Your task to perform on an android device: turn on translation in the chrome app Image 0: 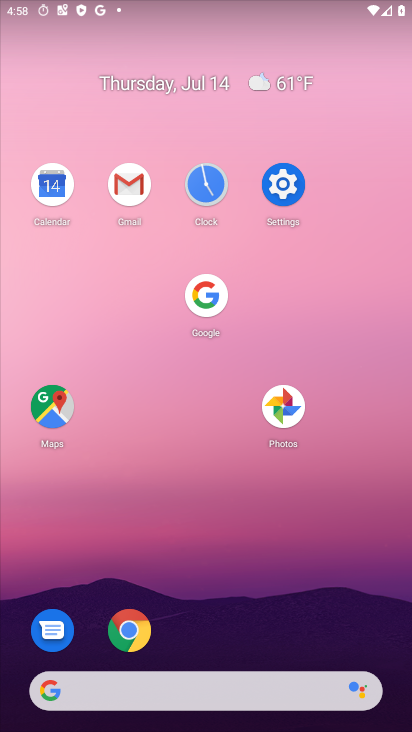
Step 0: click (126, 640)
Your task to perform on an android device: turn on translation in the chrome app Image 1: 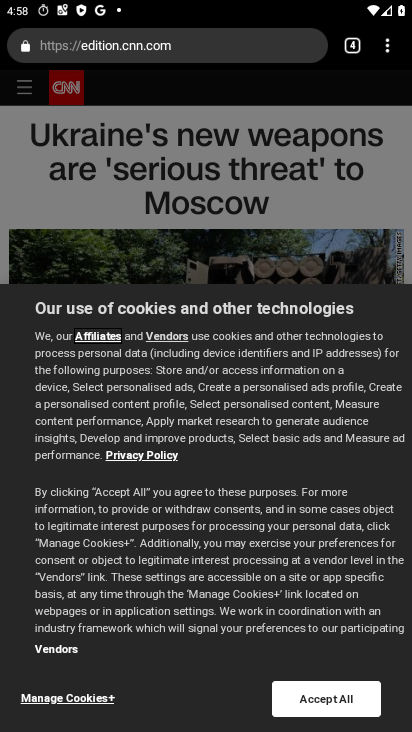
Step 1: click (393, 51)
Your task to perform on an android device: turn on translation in the chrome app Image 2: 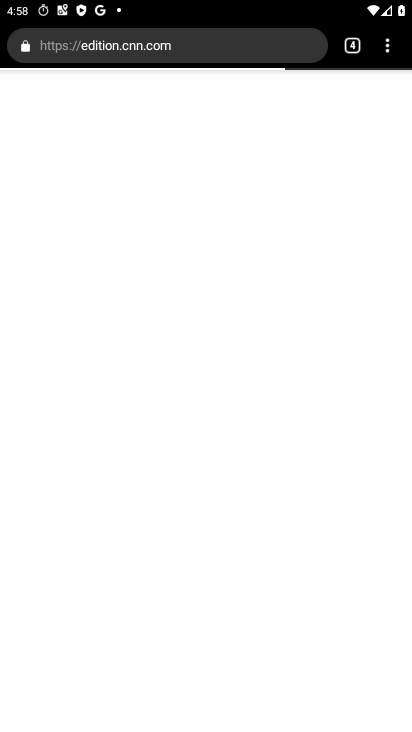
Step 2: click (391, 47)
Your task to perform on an android device: turn on translation in the chrome app Image 3: 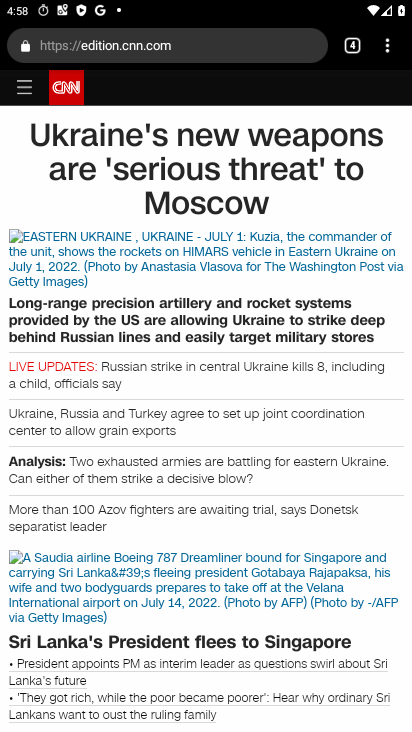
Step 3: click (391, 45)
Your task to perform on an android device: turn on translation in the chrome app Image 4: 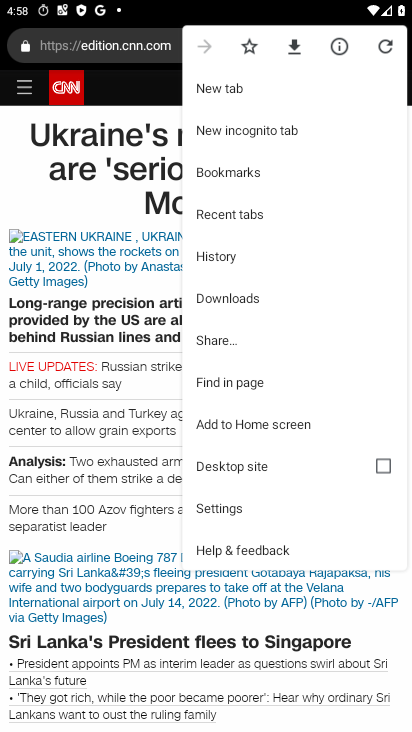
Step 4: click (228, 515)
Your task to perform on an android device: turn on translation in the chrome app Image 5: 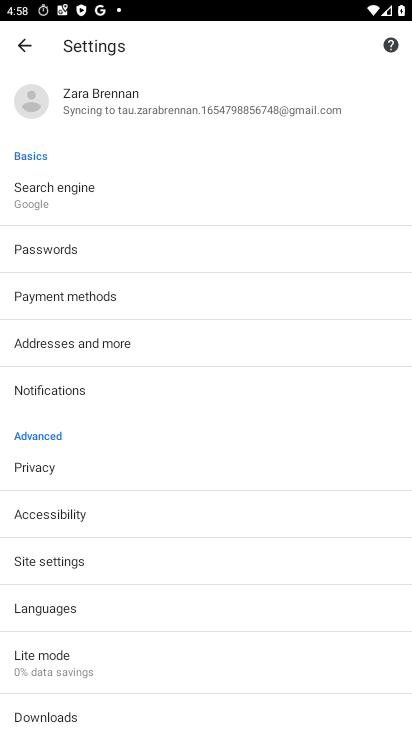
Step 5: click (103, 551)
Your task to perform on an android device: turn on translation in the chrome app Image 6: 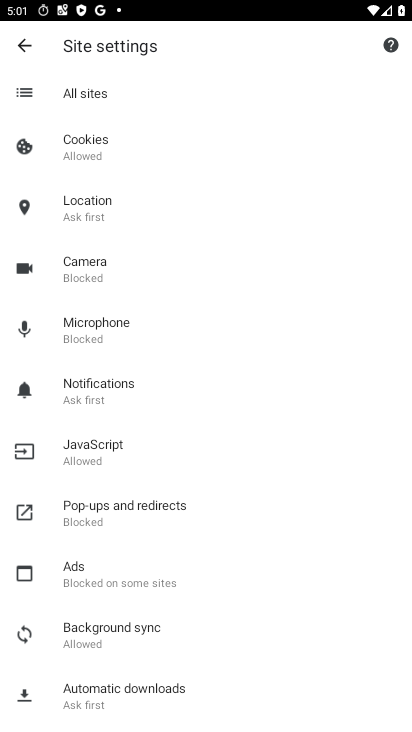
Step 6: press home button
Your task to perform on an android device: turn on translation in the chrome app Image 7: 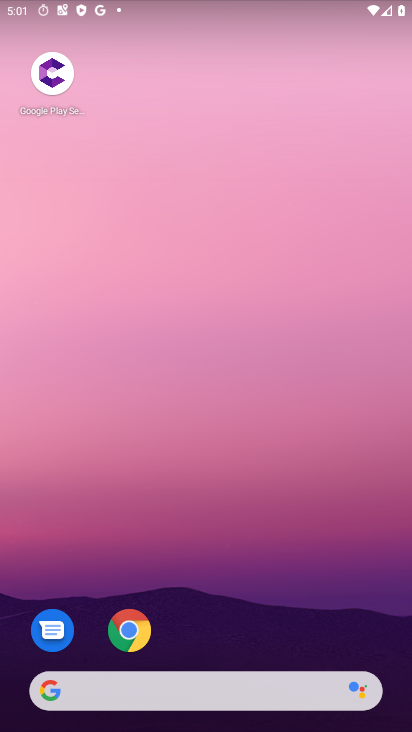
Step 7: click (136, 631)
Your task to perform on an android device: turn on translation in the chrome app Image 8: 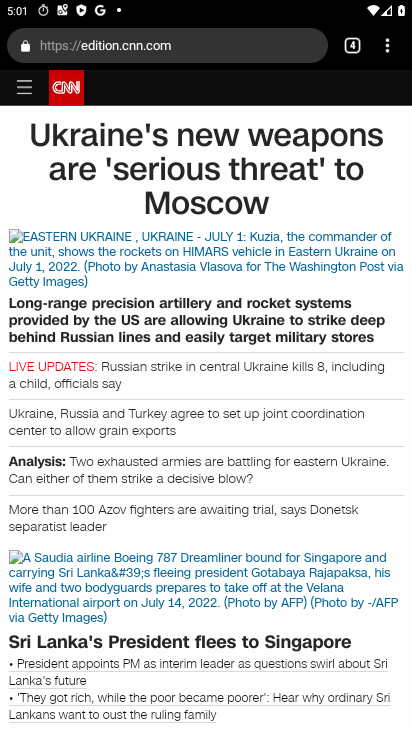
Step 8: click (390, 39)
Your task to perform on an android device: turn on translation in the chrome app Image 9: 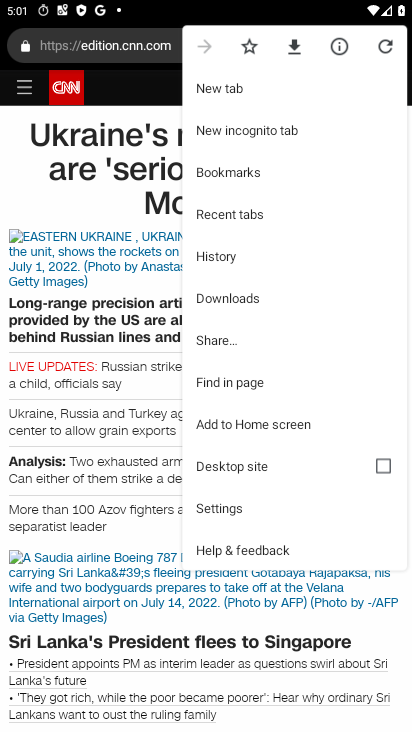
Step 9: click (243, 503)
Your task to perform on an android device: turn on translation in the chrome app Image 10: 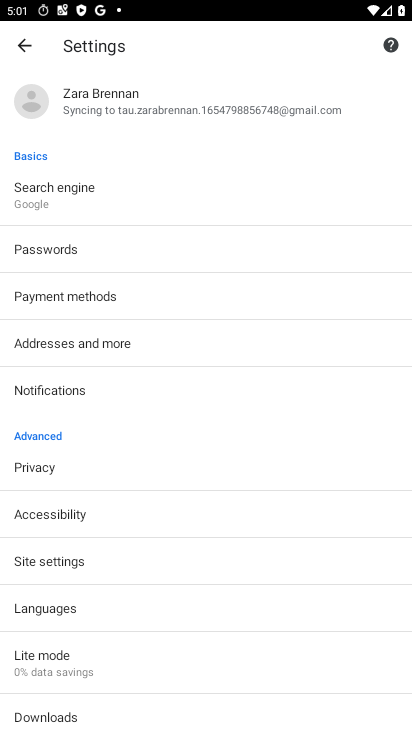
Step 10: drag from (243, 502) to (227, 240)
Your task to perform on an android device: turn on translation in the chrome app Image 11: 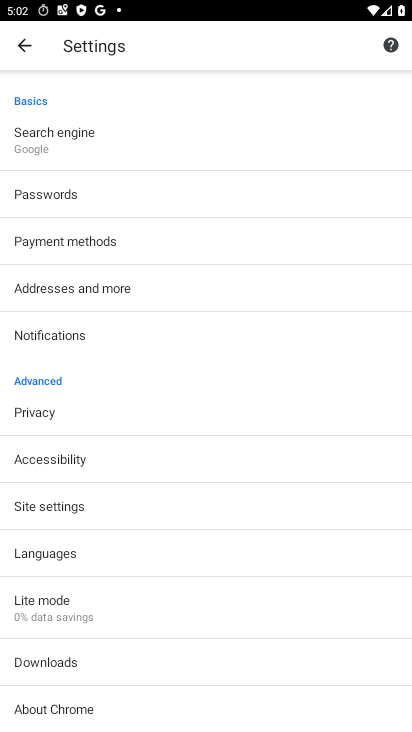
Step 11: click (179, 551)
Your task to perform on an android device: turn on translation in the chrome app Image 12: 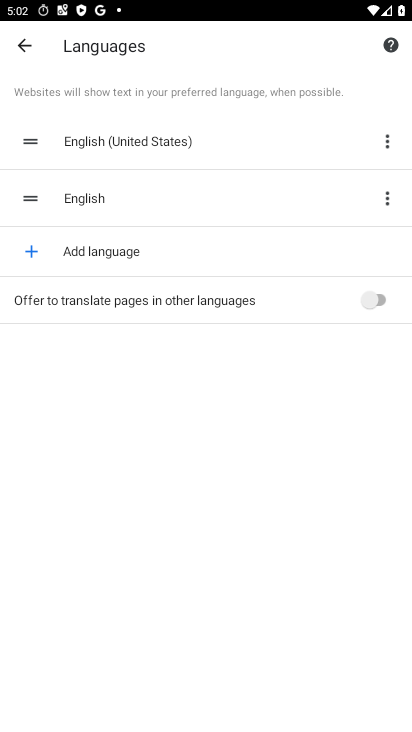
Step 12: click (362, 307)
Your task to perform on an android device: turn on translation in the chrome app Image 13: 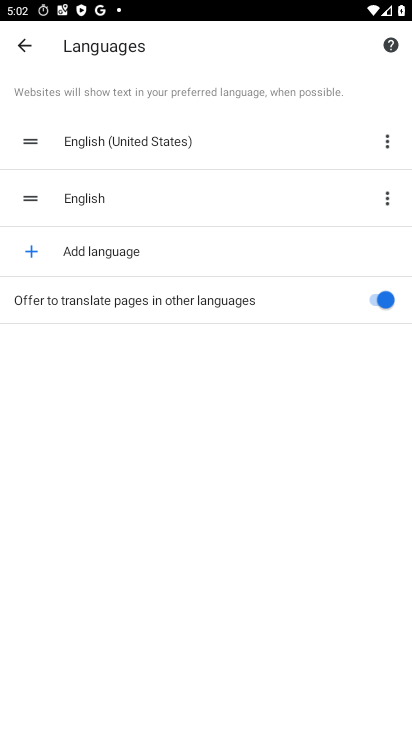
Step 13: task complete